Your task to perform on an android device: turn on translation in the chrome app Image 0: 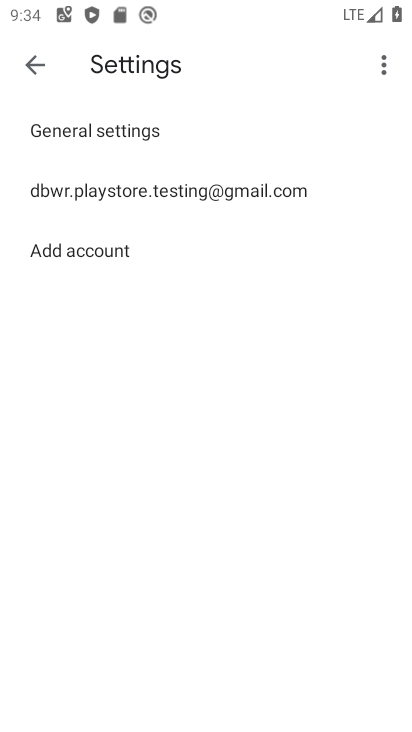
Step 0: press home button
Your task to perform on an android device: turn on translation in the chrome app Image 1: 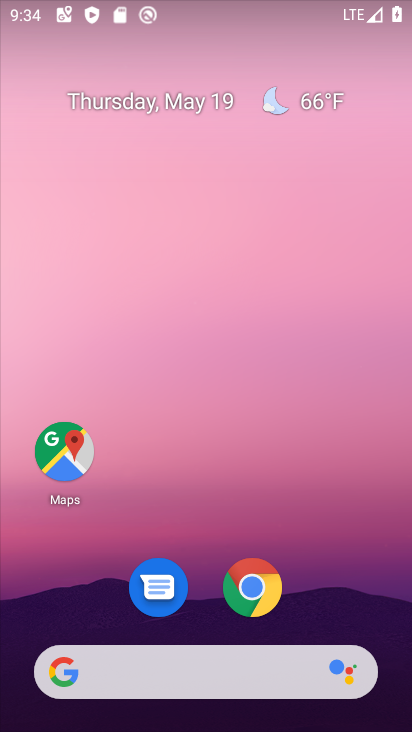
Step 1: drag from (265, 705) to (266, 276)
Your task to perform on an android device: turn on translation in the chrome app Image 2: 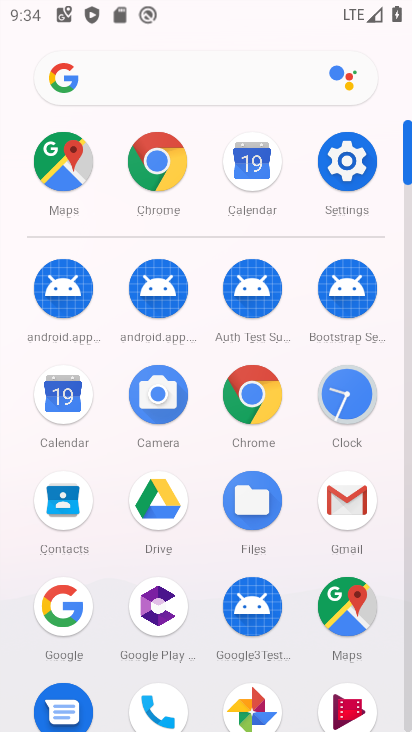
Step 2: click (159, 183)
Your task to perform on an android device: turn on translation in the chrome app Image 3: 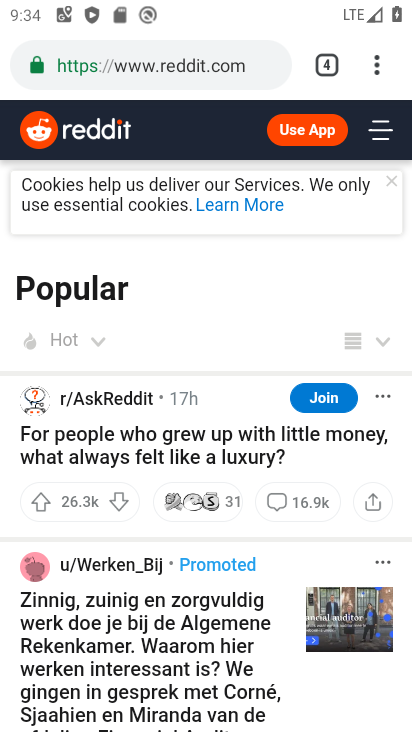
Step 3: click (373, 61)
Your task to perform on an android device: turn on translation in the chrome app Image 4: 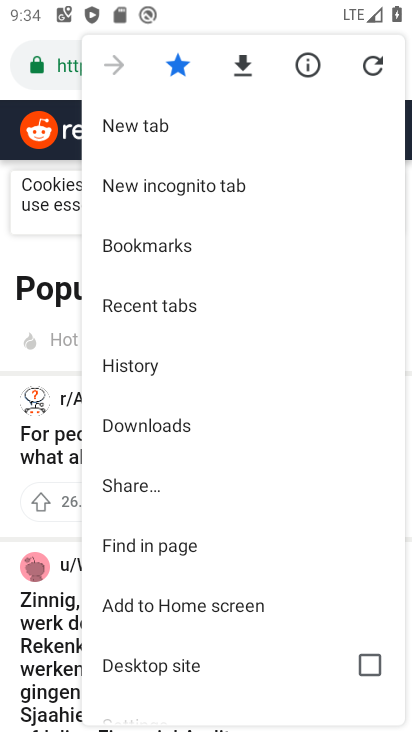
Step 4: drag from (154, 687) to (172, 477)
Your task to perform on an android device: turn on translation in the chrome app Image 5: 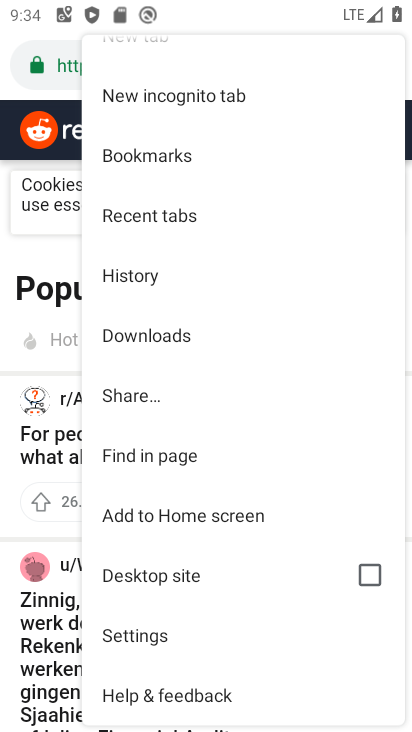
Step 5: click (182, 636)
Your task to perform on an android device: turn on translation in the chrome app Image 6: 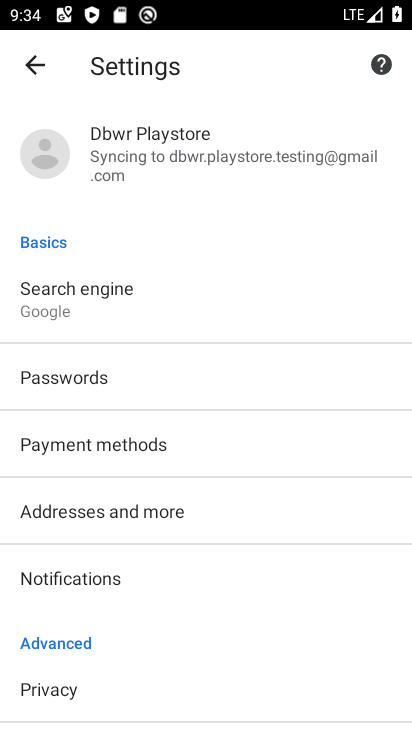
Step 6: drag from (113, 623) to (221, 378)
Your task to perform on an android device: turn on translation in the chrome app Image 7: 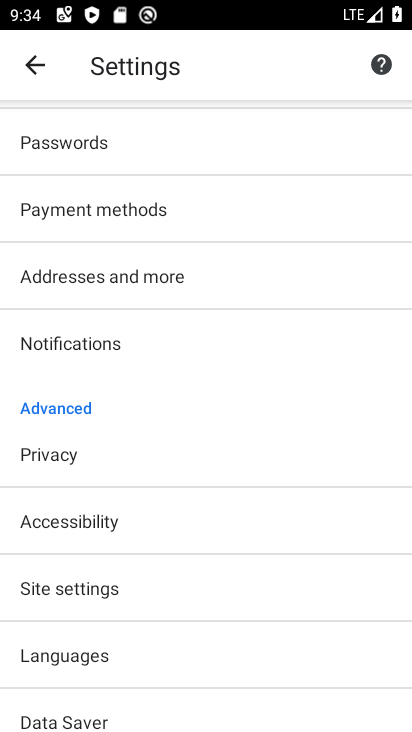
Step 7: click (97, 590)
Your task to perform on an android device: turn on translation in the chrome app Image 8: 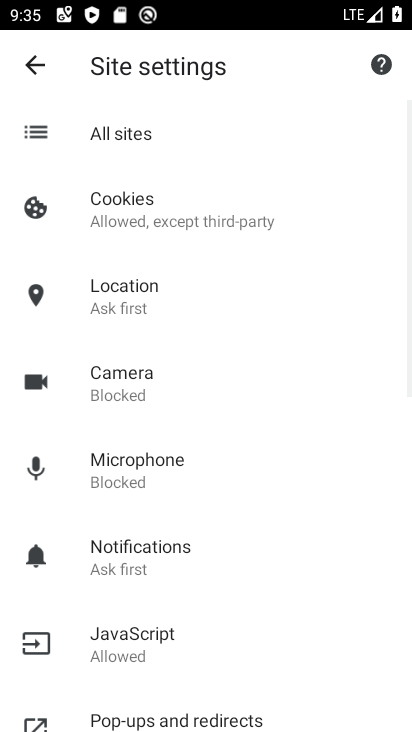
Step 8: click (43, 80)
Your task to perform on an android device: turn on translation in the chrome app Image 9: 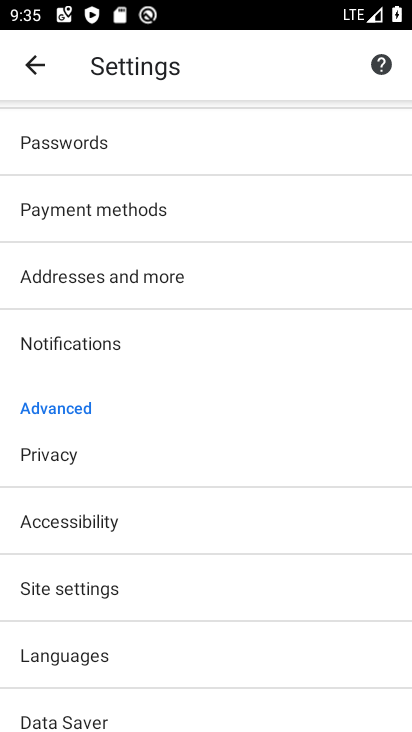
Step 9: click (66, 650)
Your task to perform on an android device: turn on translation in the chrome app Image 10: 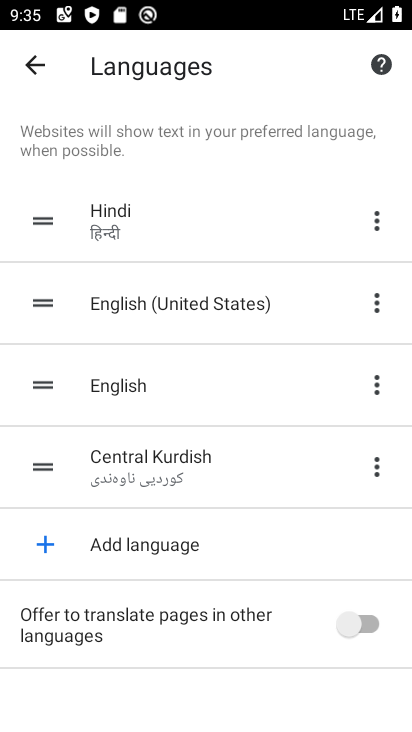
Step 10: click (361, 632)
Your task to perform on an android device: turn on translation in the chrome app Image 11: 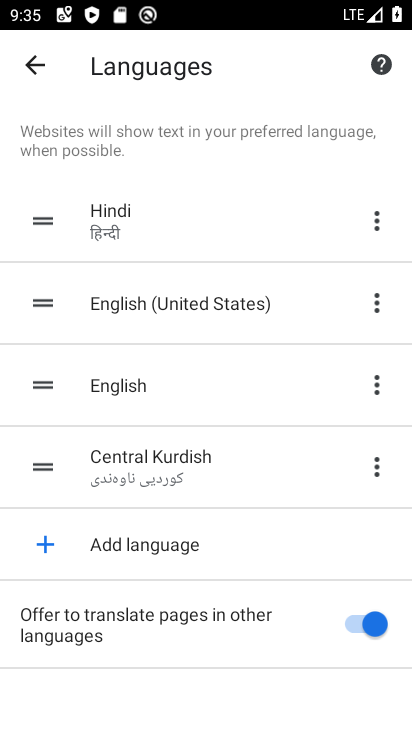
Step 11: task complete